Your task to perform on an android device: Go to Wikipedia Image 0: 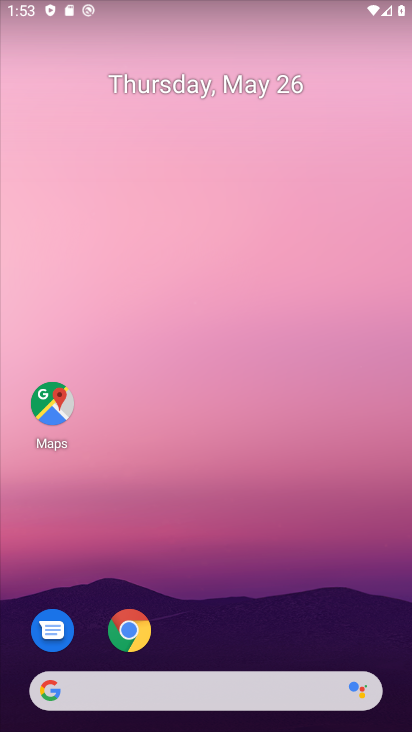
Step 0: click (120, 623)
Your task to perform on an android device: Go to Wikipedia Image 1: 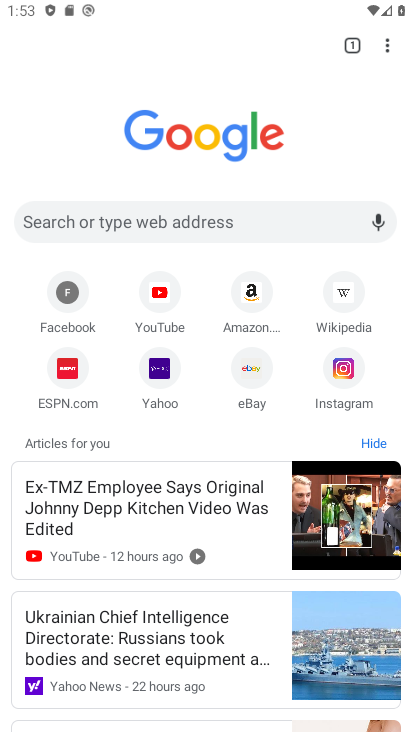
Step 1: click (322, 292)
Your task to perform on an android device: Go to Wikipedia Image 2: 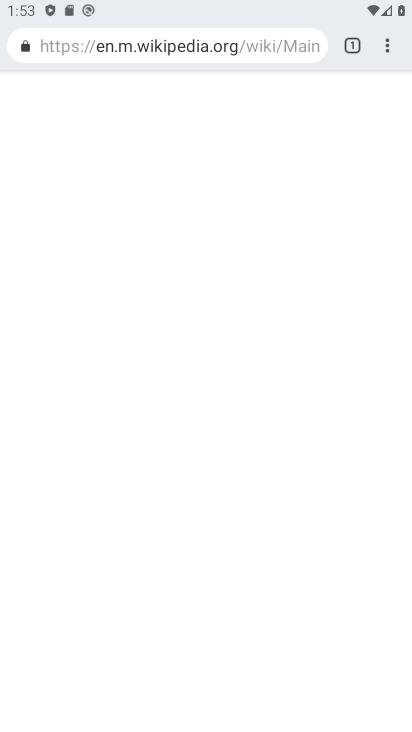
Step 2: task complete